Your task to perform on an android device: Go to settings Image 0: 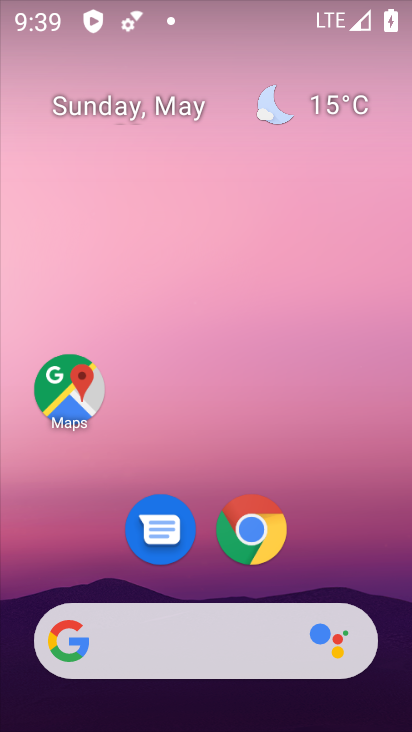
Step 0: drag from (167, 614) to (151, 34)
Your task to perform on an android device: Go to settings Image 1: 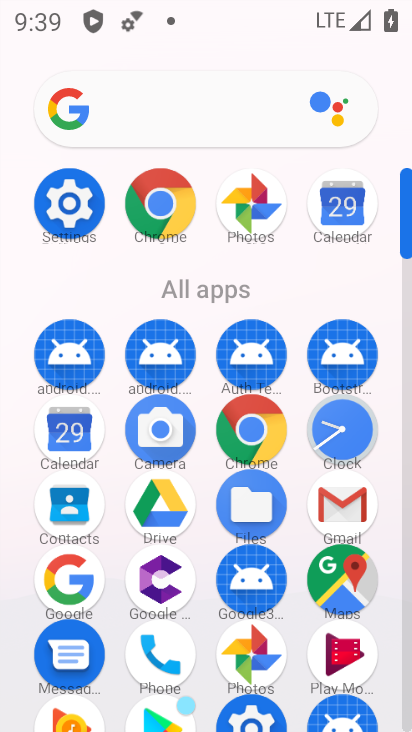
Step 1: click (66, 200)
Your task to perform on an android device: Go to settings Image 2: 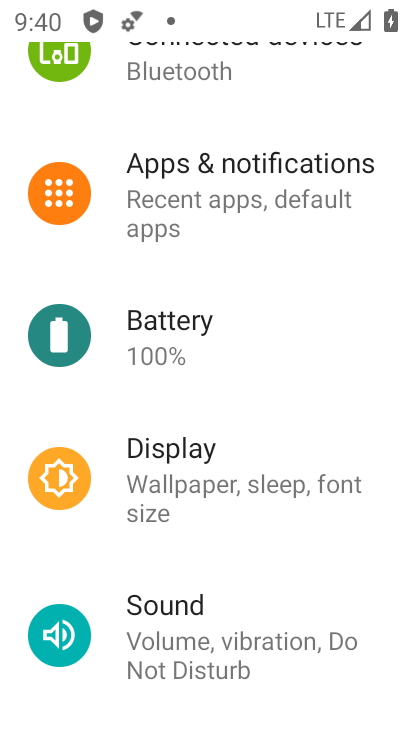
Step 2: task complete